Your task to perform on an android device: turn on improve location accuracy Image 0: 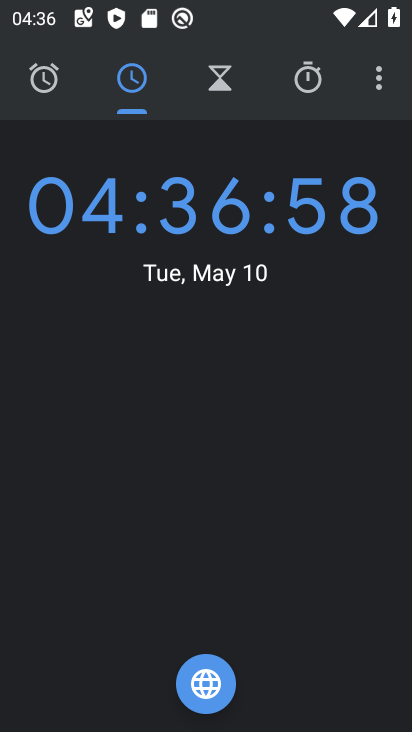
Step 0: press home button
Your task to perform on an android device: turn on improve location accuracy Image 1: 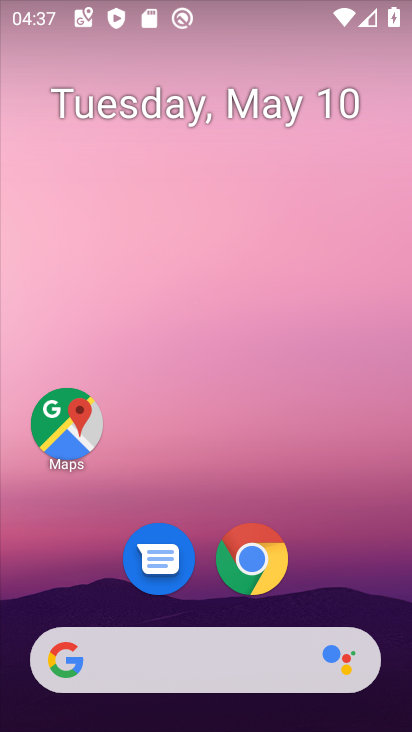
Step 1: drag from (364, 539) to (311, 4)
Your task to perform on an android device: turn on improve location accuracy Image 2: 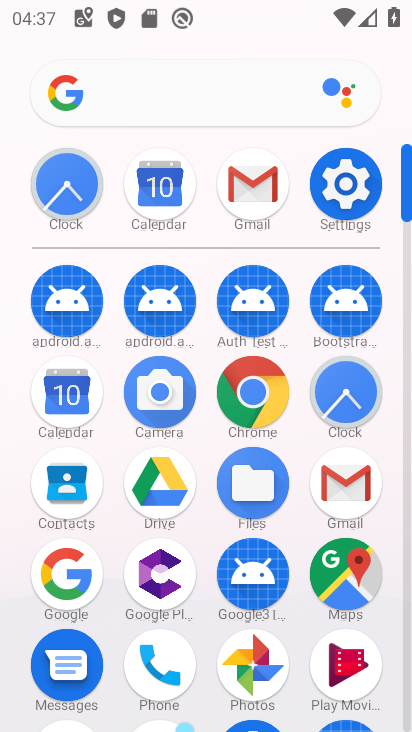
Step 2: click (335, 173)
Your task to perform on an android device: turn on improve location accuracy Image 3: 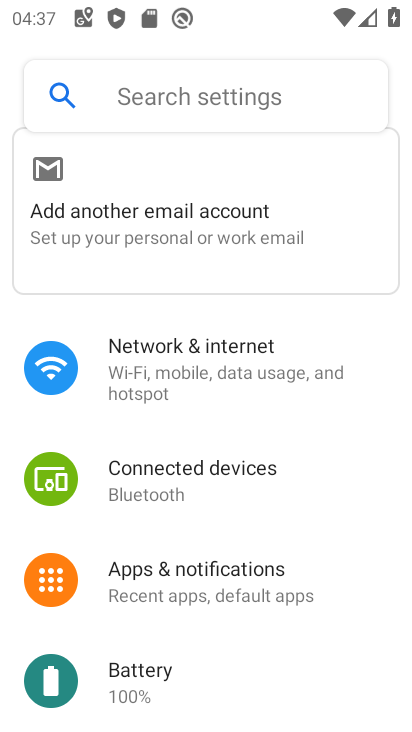
Step 3: drag from (203, 637) to (198, 183)
Your task to perform on an android device: turn on improve location accuracy Image 4: 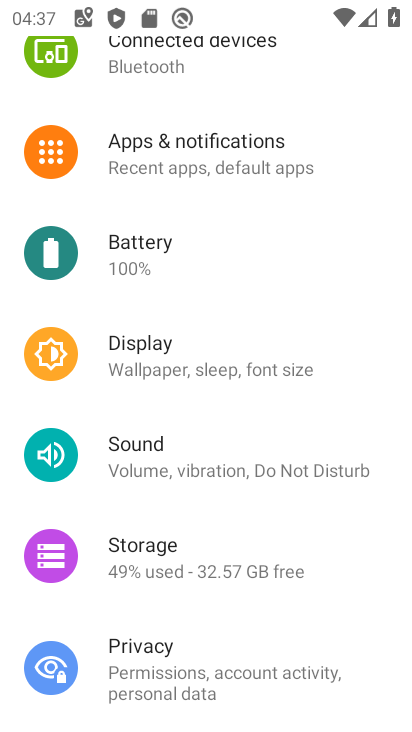
Step 4: drag from (131, 651) to (199, 224)
Your task to perform on an android device: turn on improve location accuracy Image 5: 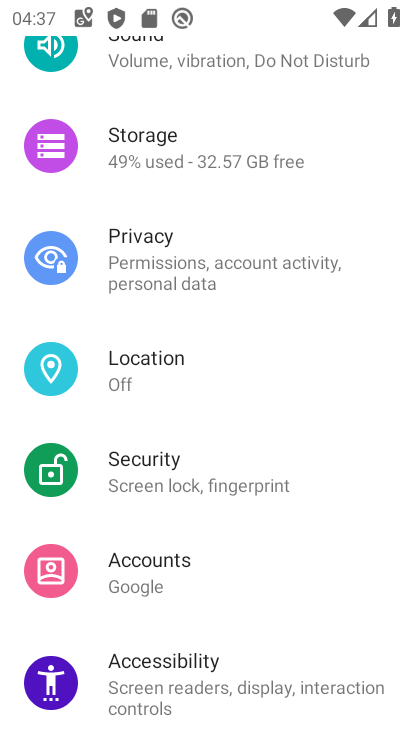
Step 5: click (171, 370)
Your task to perform on an android device: turn on improve location accuracy Image 6: 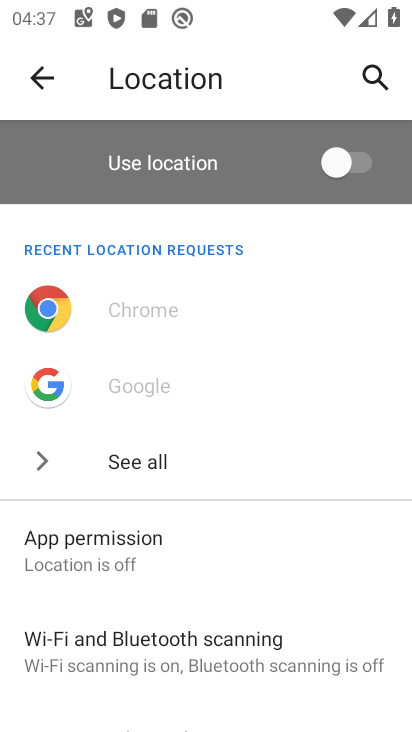
Step 6: drag from (157, 656) to (179, 262)
Your task to perform on an android device: turn on improve location accuracy Image 7: 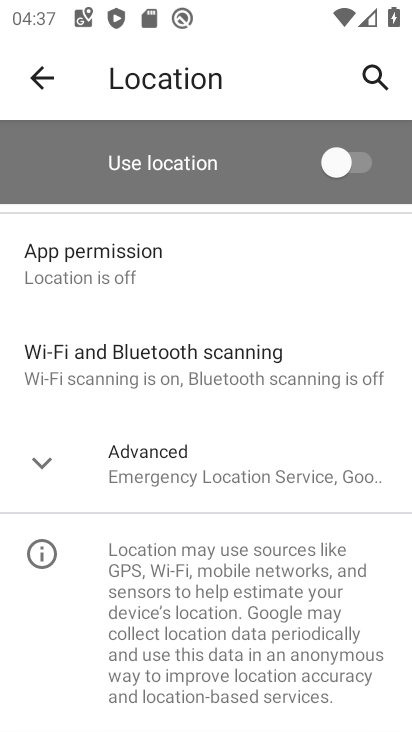
Step 7: click (142, 452)
Your task to perform on an android device: turn on improve location accuracy Image 8: 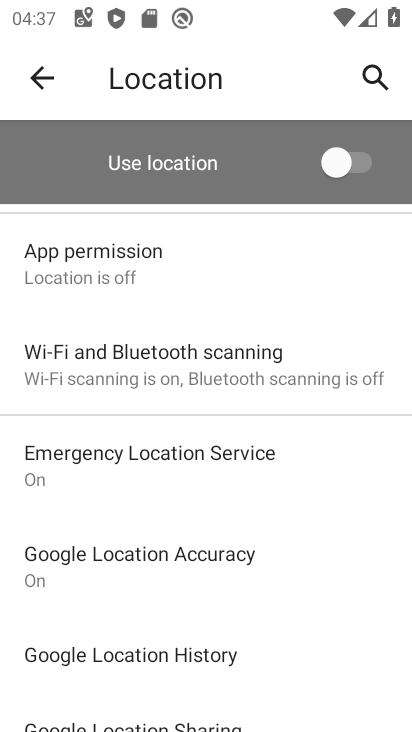
Step 8: click (178, 560)
Your task to perform on an android device: turn on improve location accuracy Image 9: 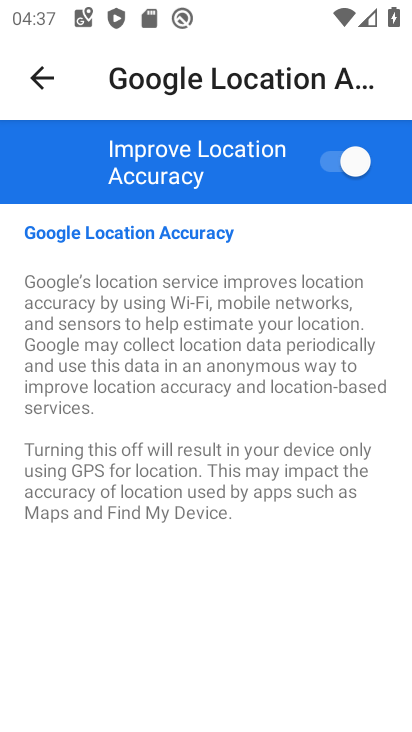
Step 9: task complete